Your task to perform on an android device: see tabs open on other devices in the chrome app Image 0: 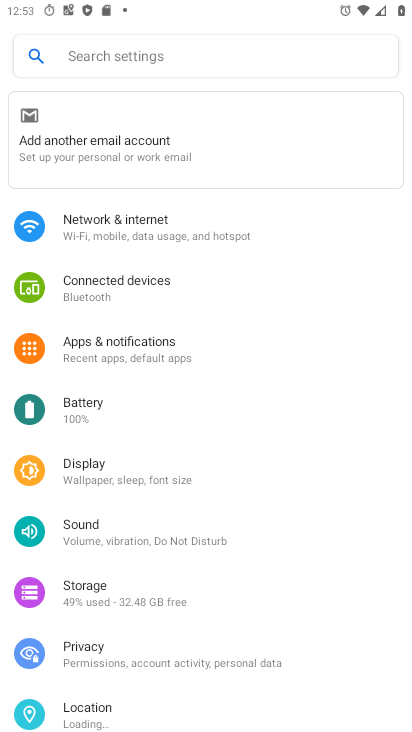
Step 0: press home button
Your task to perform on an android device: see tabs open on other devices in the chrome app Image 1: 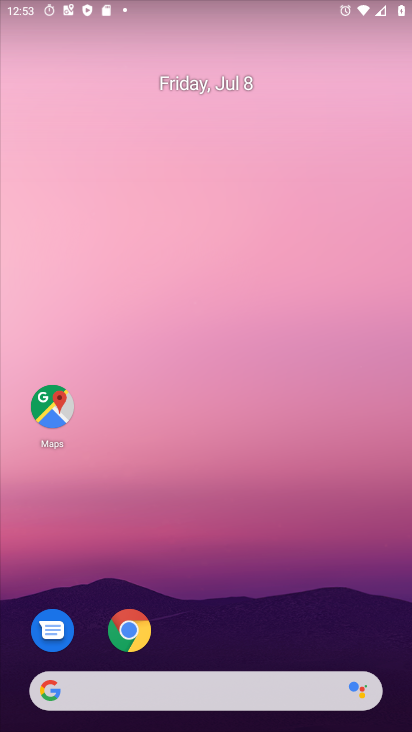
Step 1: click (138, 648)
Your task to perform on an android device: see tabs open on other devices in the chrome app Image 2: 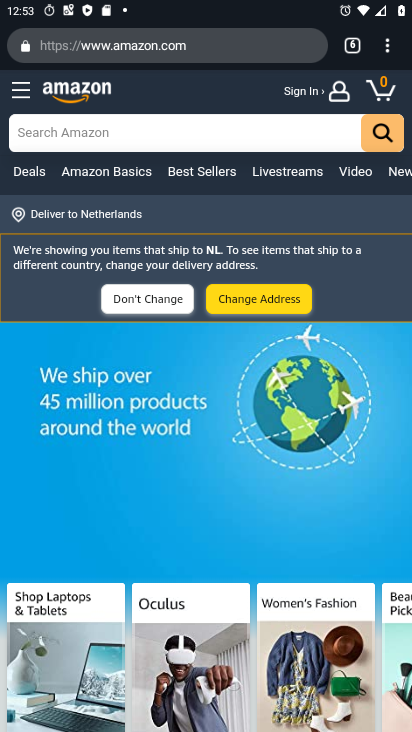
Step 2: click (377, 42)
Your task to perform on an android device: see tabs open on other devices in the chrome app Image 3: 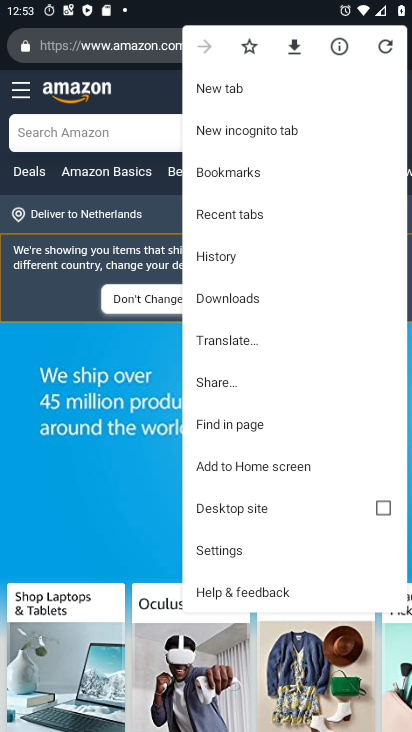
Step 3: click (248, 219)
Your task to perform on an android device: see tabs open on other devices in the chrome app Image 4: 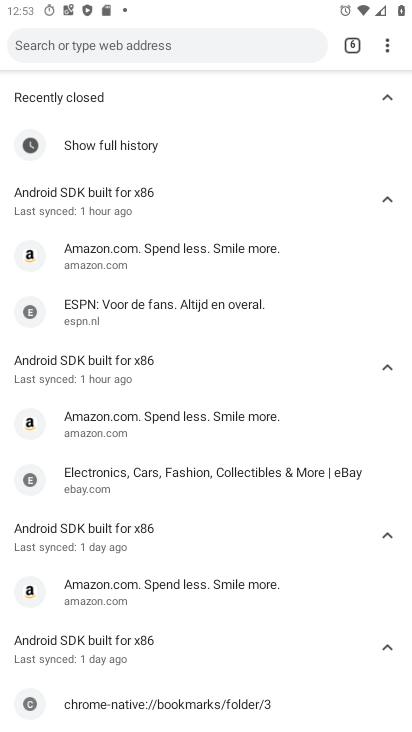
Step 4: task complete